Your task to perform on an android device: toggle improve location accuracy Image 0: 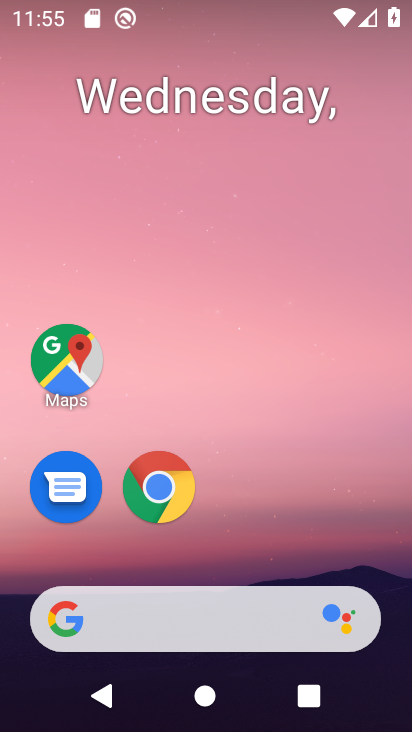
Step 0: drag from (324, 507) to (331, 108)
Your task to perform on an android device: toggle improve location accuracy Image 1: 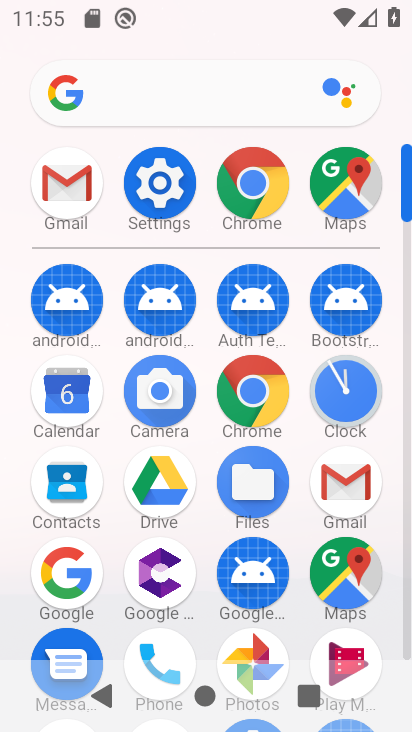
Step 1: click (175, 190)
Your task to perform on an android device: toggle improve location accuracy Image 2: 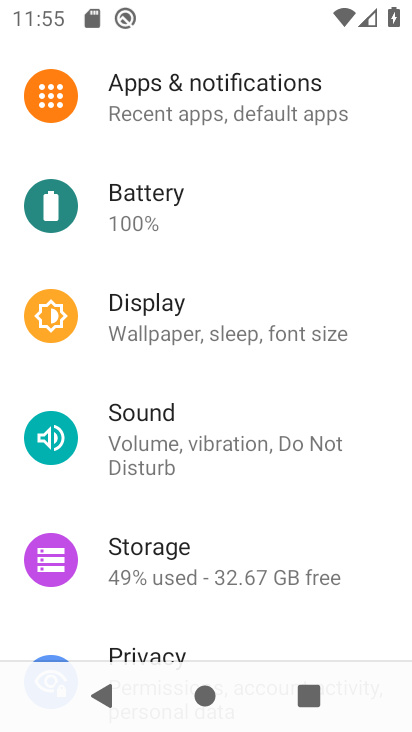
Step 2: drag from (388, 253) to (370, 401)
Your task to perform on an android device: toggle improve location accuracy Image 3: 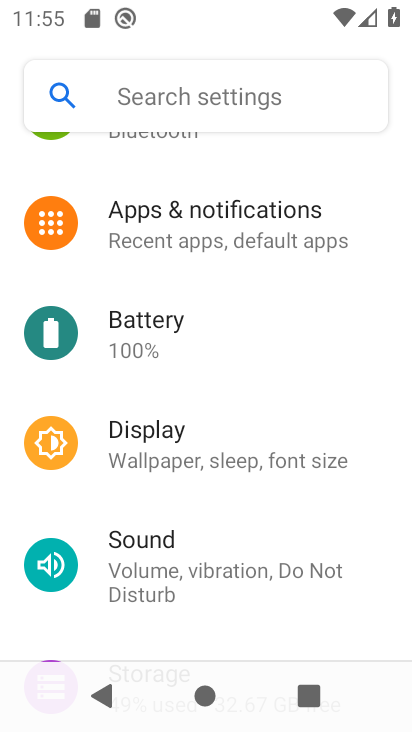
Step 3: drag from (383, 291) to (382, 387)
Your task to perform on an android device: toggle improve location accuracy Image 4: 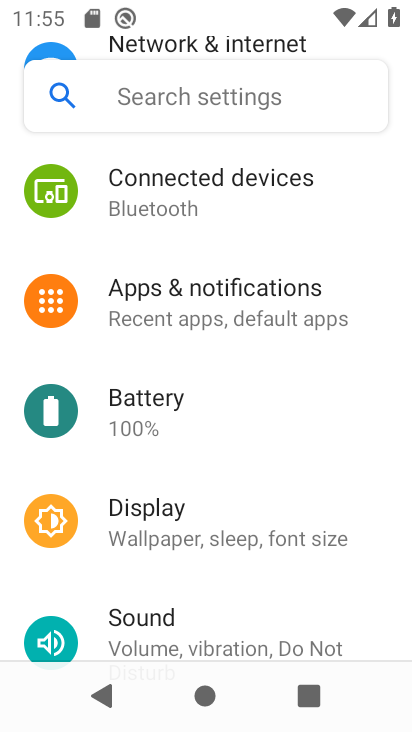
Step 4: drag from (381, 243) to (382, 376)
Your task to perform on an android device: toggle improve location accuracy Image 5: 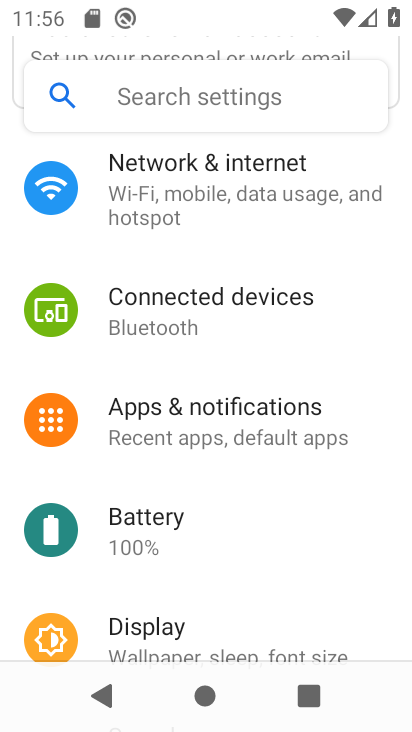
Step 5: drag from (379, 328) to (378, 385)
Your task to perform on an android device: toggle improve location accuracy Image 6: 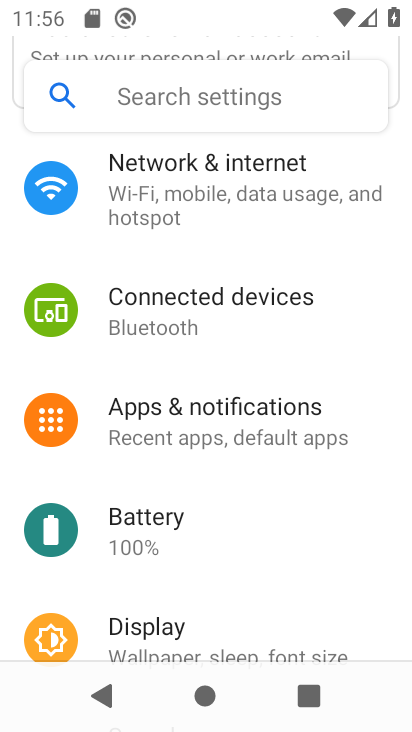
Step 6: drag from (380, 525) to (385, 365)
Your task to perform on an android device: toggle improve location accuracy Image 7: 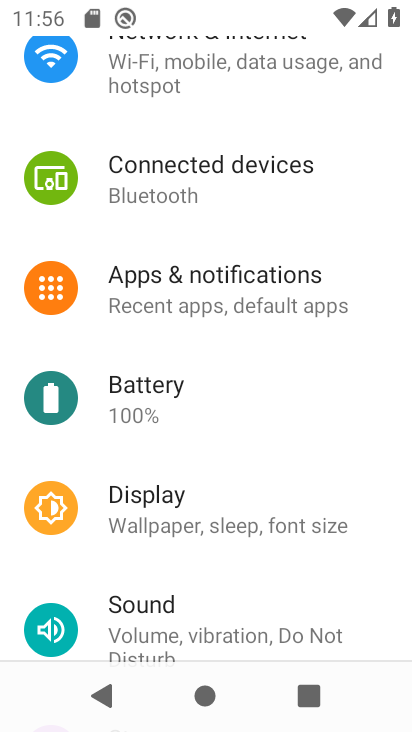
Step 7: drag from (338, 445) to (343, 309)
Your task to perform on an android device: toggle improve location accuracy Image 8: 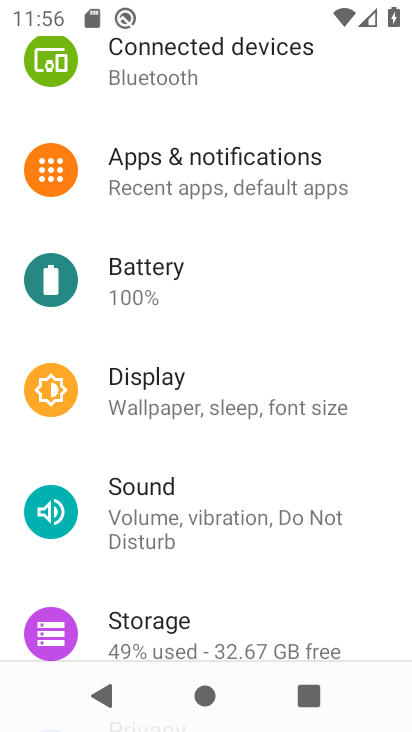
Step 8: drag from (363, 530) to (358, 405)
Your task to perform on an android device: toggle improve location accuracy Image 9: 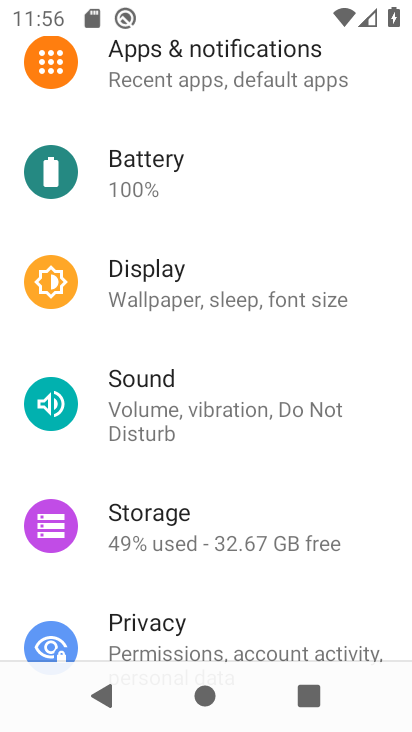
Step 9: drag from (384, 558) to (373, 444)
Your task to perform on an android device: toggle improve location accuracy Image 10: 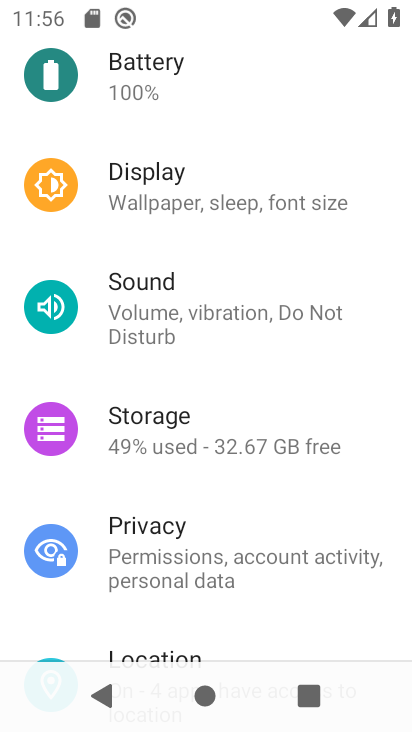
Step 10: drag from (344, 509) to (345, 407)
Your task to perform on an android device: toggle improve location accuracy Image 11: 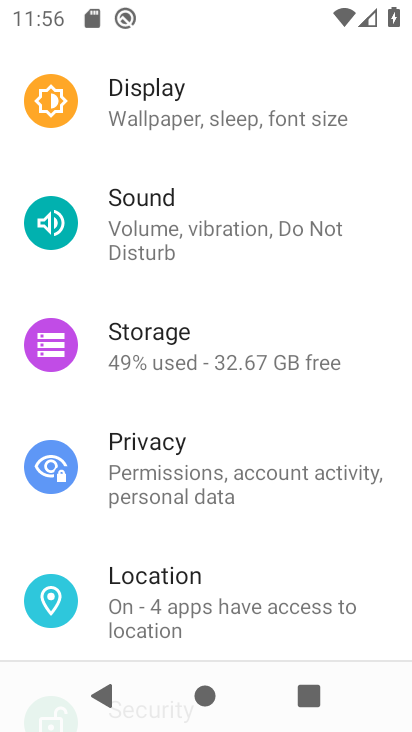
Step 11: drag from (323, 545) to (329, 412)
Your task to perform on an android device: toggle improve location accuracy Image 12: 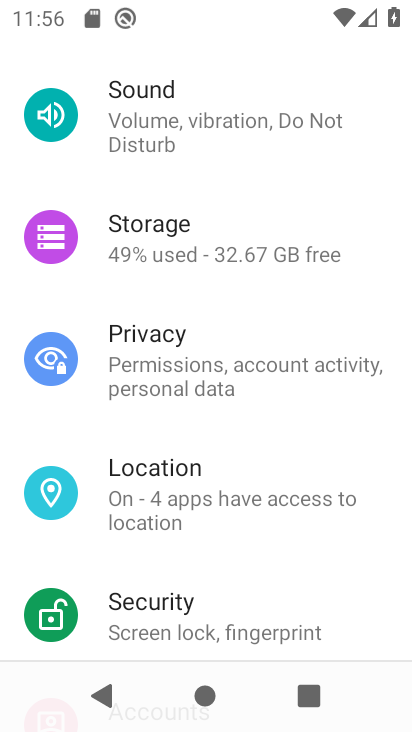
Step 12: click (275, 493)
Your task to perform on an android device: toggle improve location accuracy Image 13: 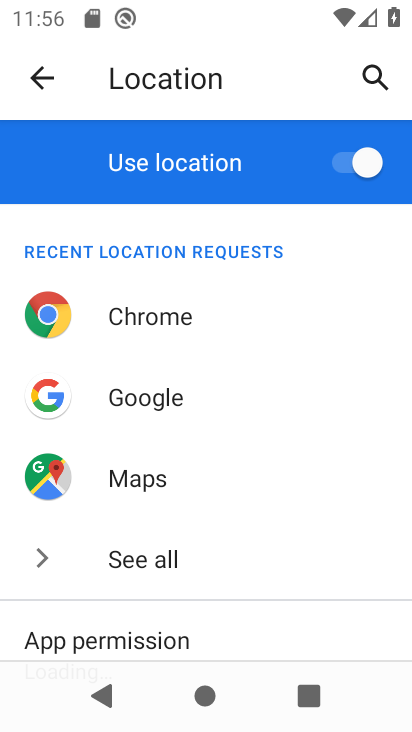
Step 13: drag from (337, 571) to (346, 353)
Your task to perform on an android device: toggle improve location accuracy Image 14: 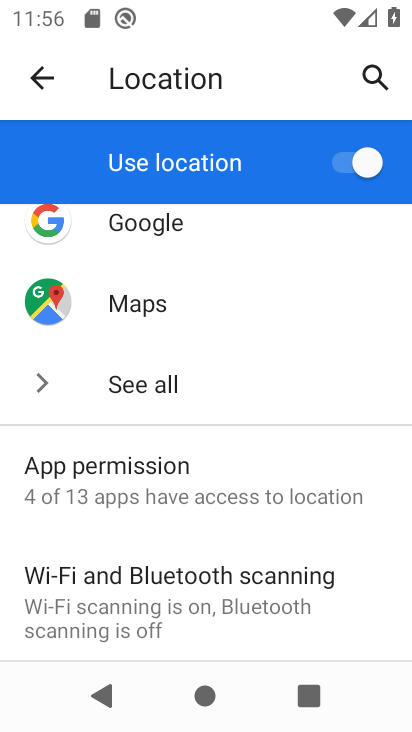
Step 14: drag from (361, 610) to (369, 460)
Your task to perform on an android device: toggle improve location accuracy Image 15: 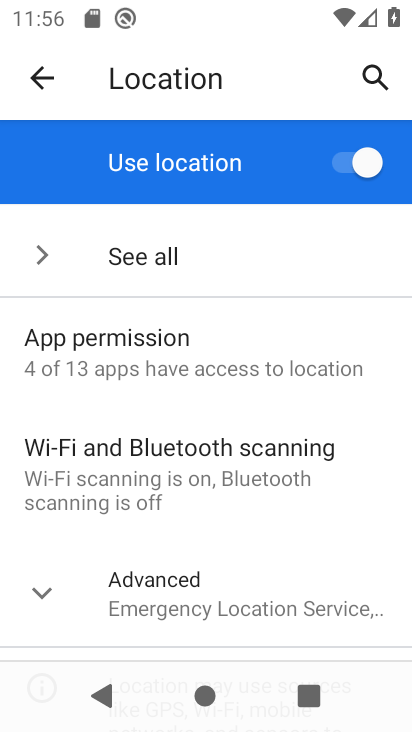
Step 15: drag from (365, 532) to (359, 356)
Your task to perform on an android device: toggle improve location accuracy Image 16: 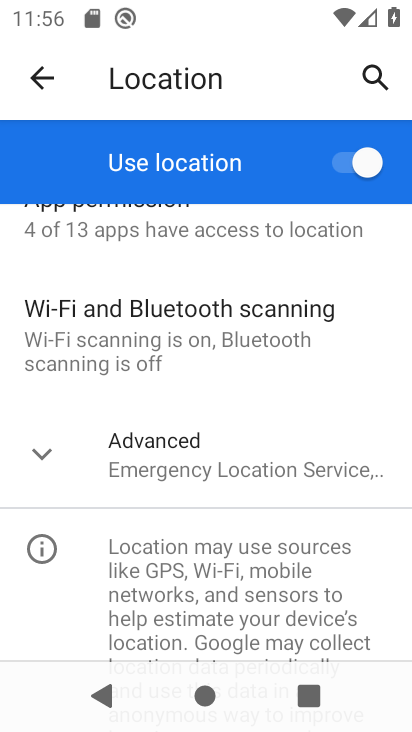
Step 16: click (275, 470)
Your task to perform on an android device: toggle improve location accuracy Image 17: 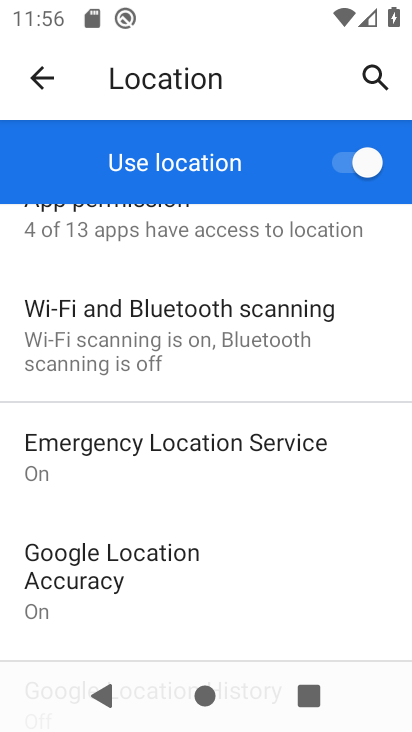
Step 17: click (119, 566)
Your task to perform on an android device: toggle improve location accuracy Image 18: 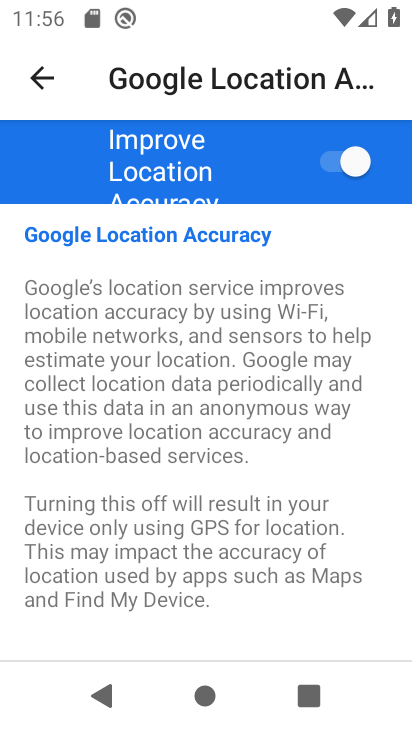
Step 18: click (360, 169)
Your task to perform on an android device: toggle improve location accuracy Image 19: 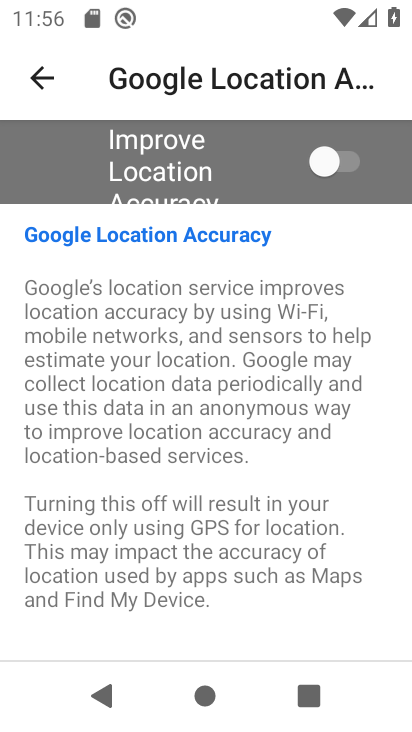
Step 19: task complete